Your task to perform on an android device: Open calendar and show me the first week of next month Image 0: 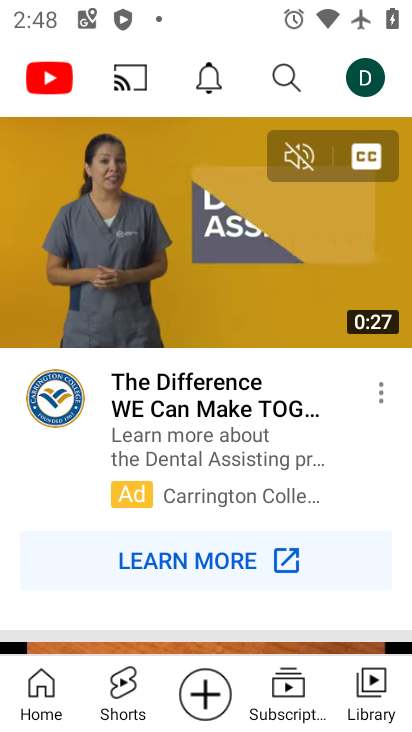
Step 0: press home button
Your task to perform on an android device: Open calendar and show me the first week of next month Image 1: 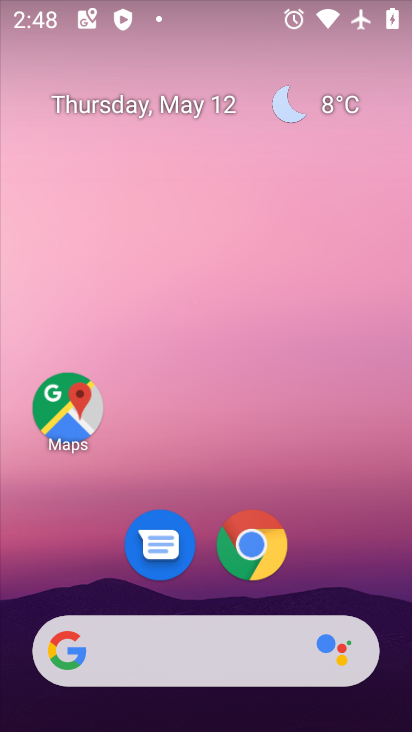
Step 1: drag from (394, 633) to (249, 0)
Your task to perform on an android device: Open calendar and show me the first week of next month Image 2: 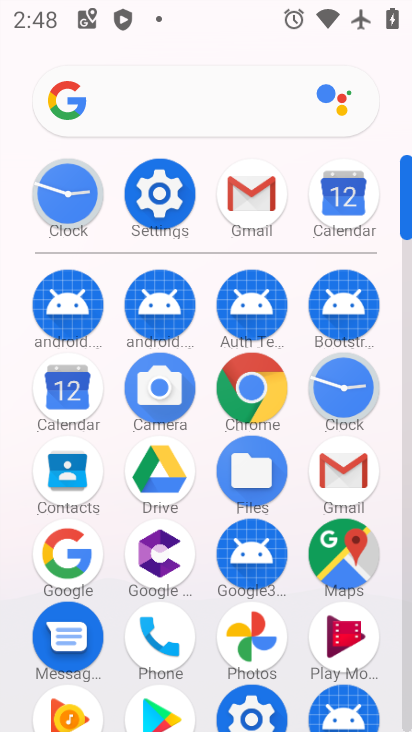
Step 2: click (409, 708)
Your task to perform on an android device: Open calendar and show me the first week of next month Image 3: 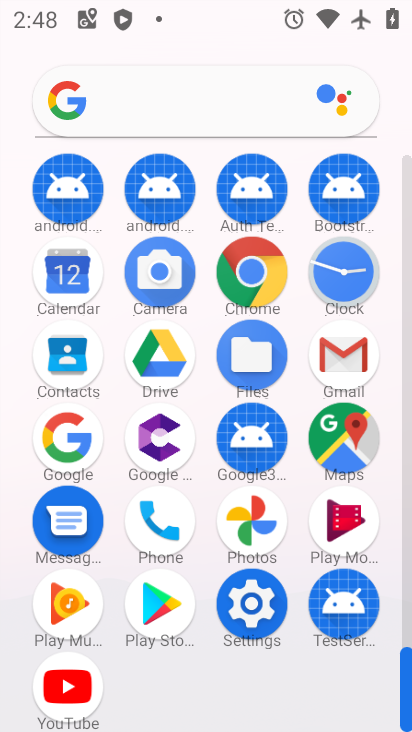
Step 3: click (70, 271)
Your task to perform on an android device: Open calendar and show me the first week of next month Image 4: 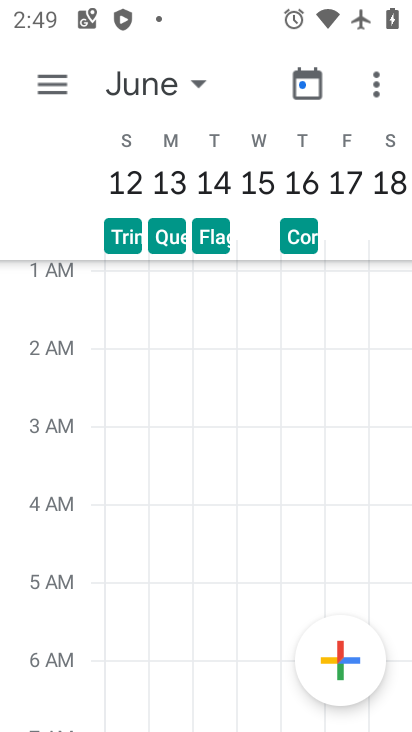
Step 4: click (196, 80)
Your task to perform on an android device: Open calendar and show me the first week of next month Image 5: 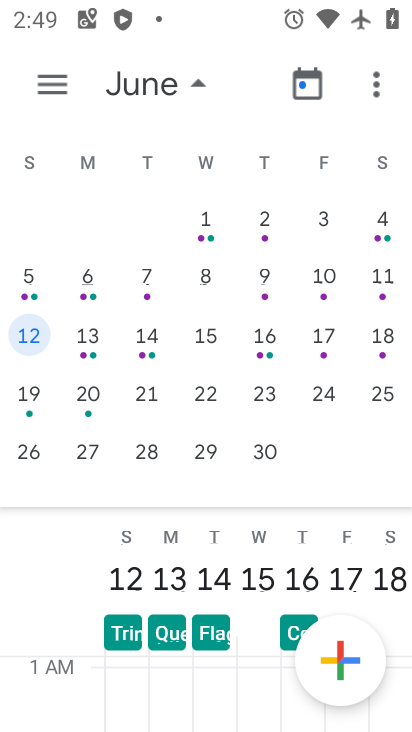
Step 5: click (203, 225)
Your task to perform on an android device: Open calendar and show me the first week of next month Image 6: 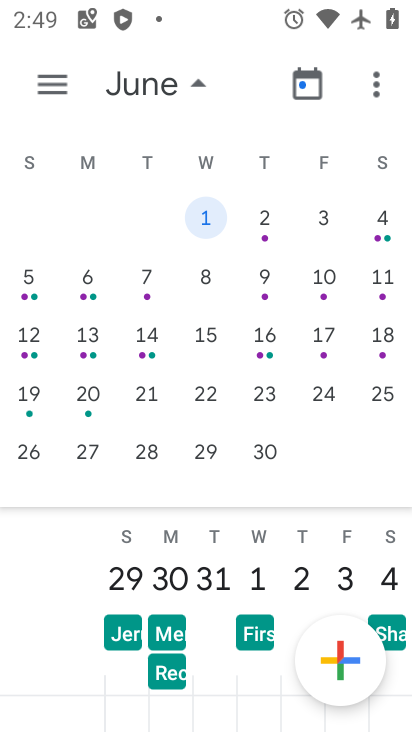
Step 6: task complete